Your task to perform on an android device: Go to network settings Image 0: 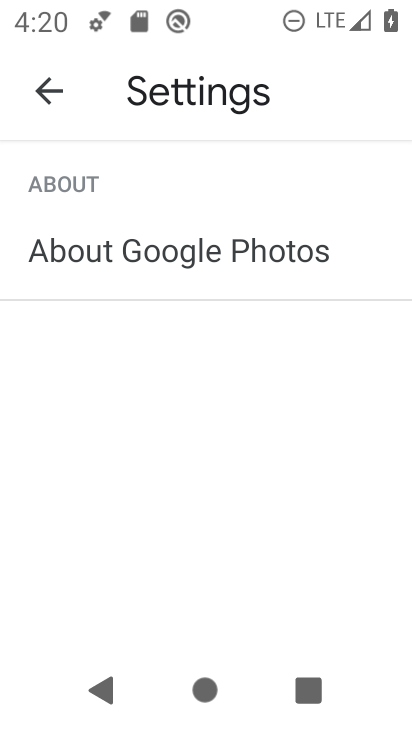
Step 0: press home button
Your task to perform on an android device: Go to network settings Image 1: 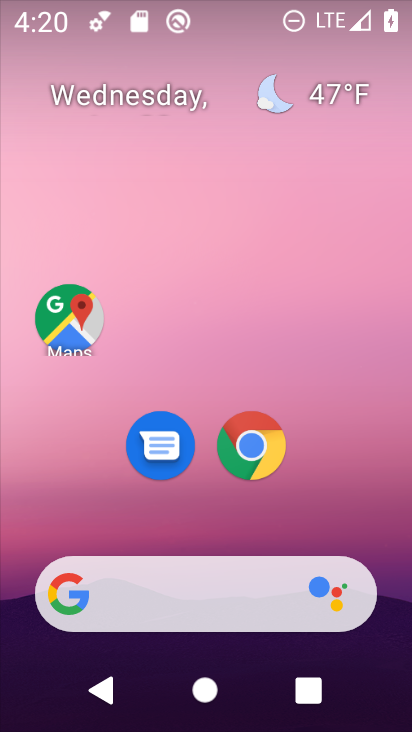
Step 1: drag from (298, 500) to (317, 52)
Your task to perform on an android device: Go to network settings Image 2: 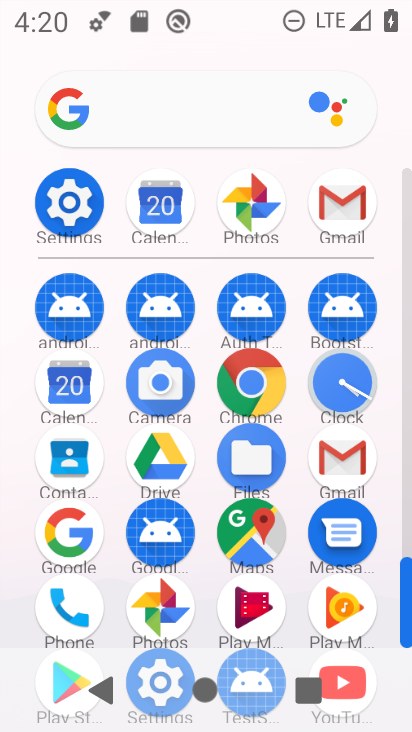
Step 2: click (59, 199)
Your task to perform on an android device: Go to network settings Image 3: 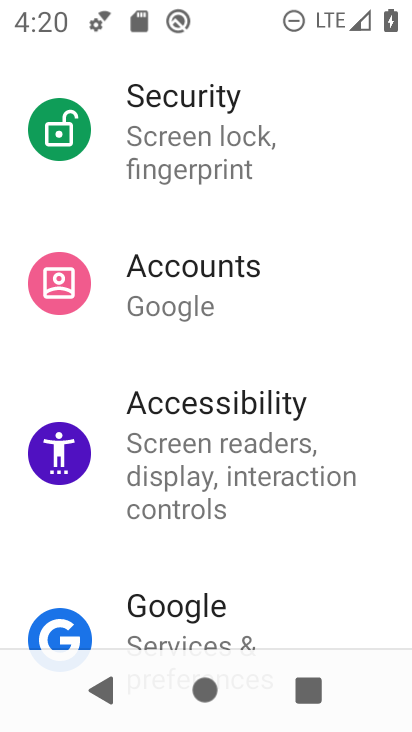
Step 3: click (193, 462)
Your task to perform on an android device: Go to network settings Image 4: 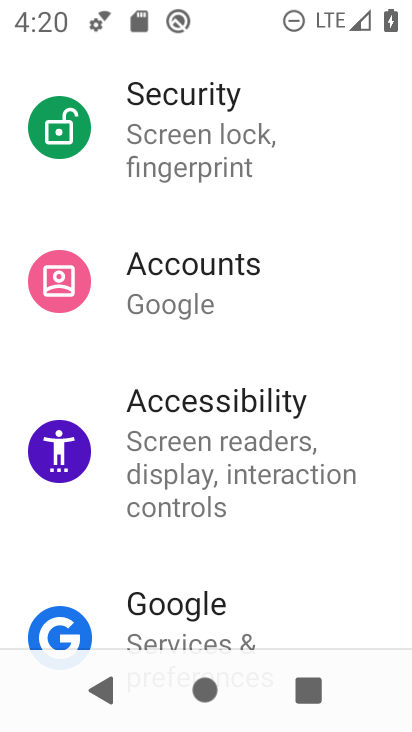
Step 4: drag from (255, 230) to (286, 408)
Your task to perform on an android device: Go to network settings Image 5: 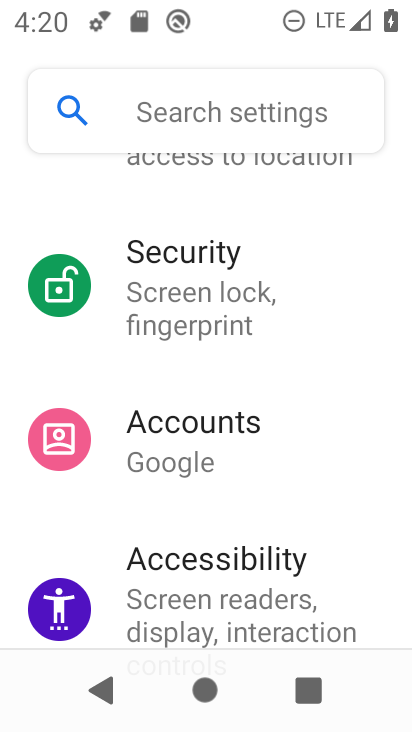
Step 5: drag from (290, 244) to (280, 454)
Your task to perform on an android device: Go to network settings Image 6: 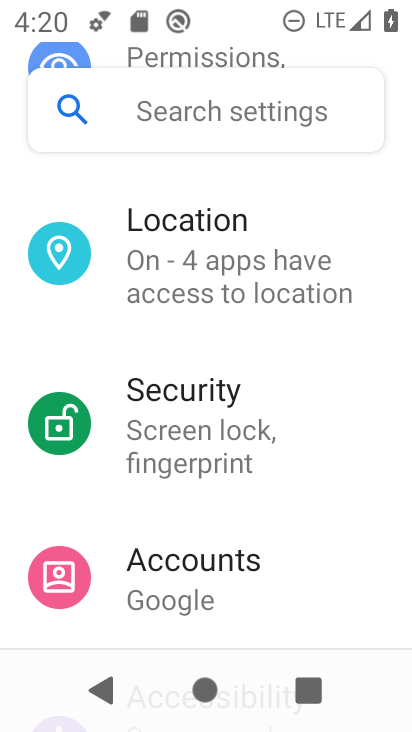
Step 6: drag from (301, 212) to (293, 490)
Your task to perform on an android device: Go to network settings Image 7: 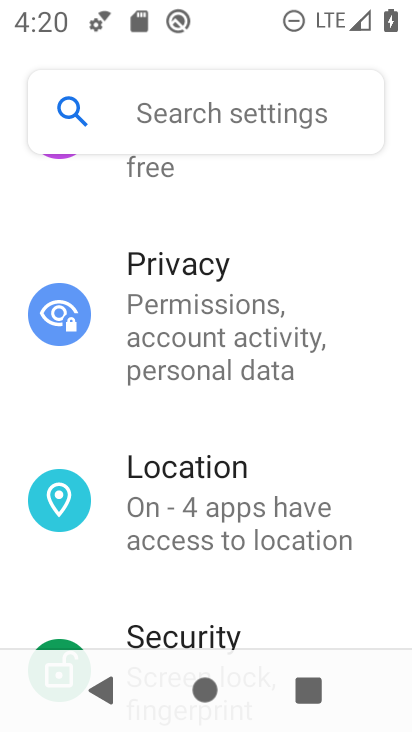
Step 7: drag from (309, 243) to (313, 454)
Your task to perform on an android device: Go to network settings Image 8: 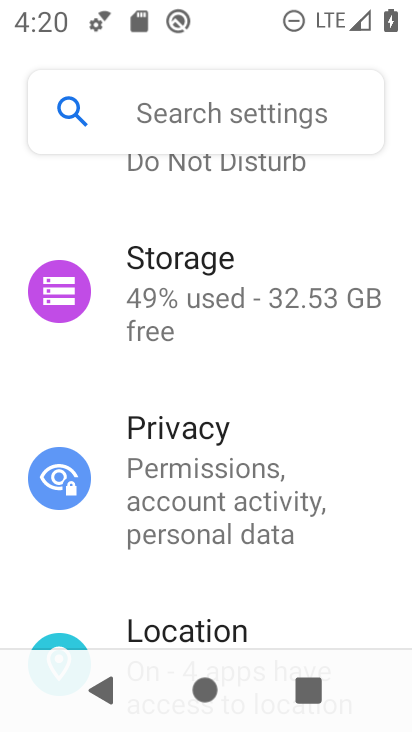
Step 8: drag from (305, 240) to (313, 405)
Your task to perform on an android device: Go to network settings Image 9: 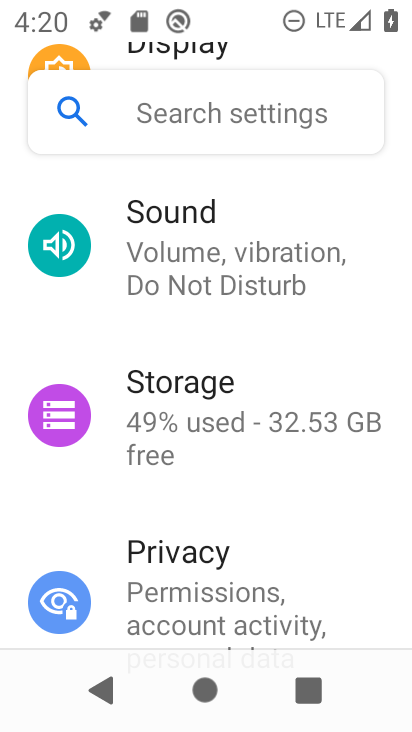
Step 9: drag from (305, 202) to (302, 445)
Your task to perform on an android device: Go to network settings Image 10: 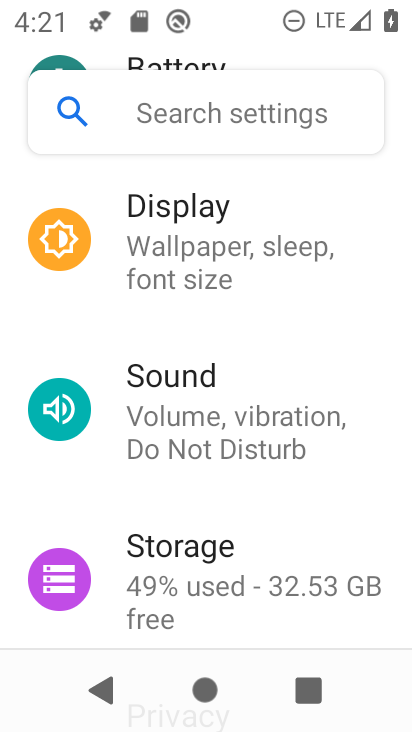
Step 10: drag from (298, 221) to (300, 429)
Your task to perform on an android device: Go to network settings Image 11: 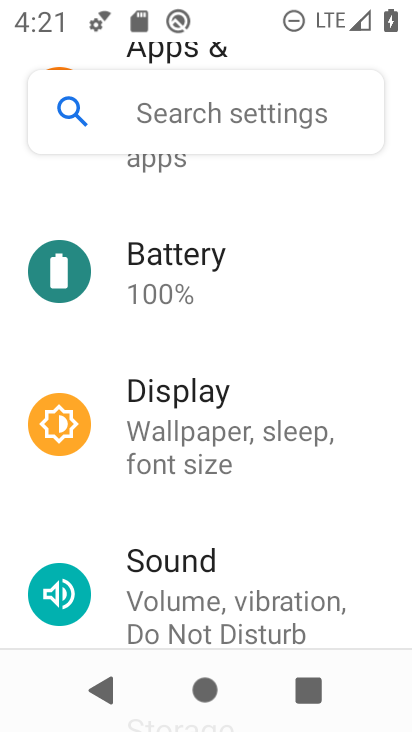
Step 11: drag from (277, 242) to (264, 438)
Your task to perform on an android device: Go to network settings Image 12: 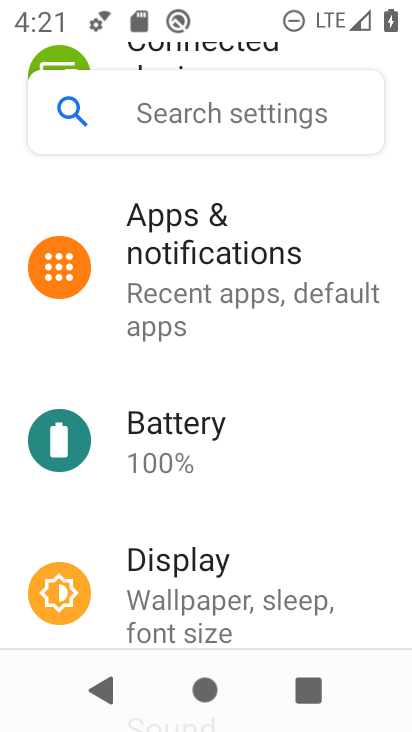
Step 12: drag from (303, 206) to (324, 390)
Your task to perform on an android device: Go to network settings Image 13: 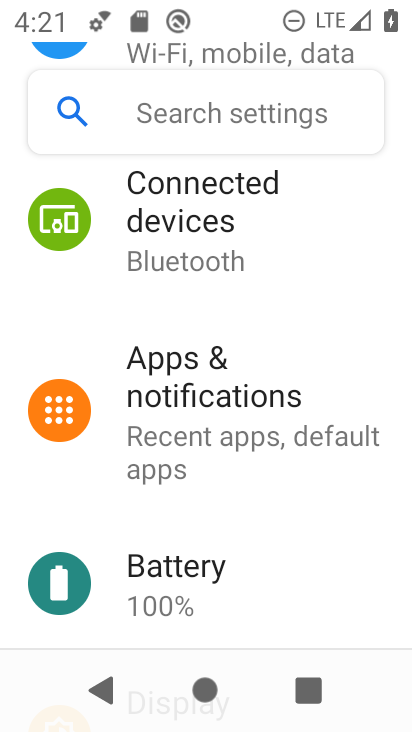
Step 13: drag from (335, 222) to (308, 447)
Your task to perform on an android device: Go to network settings Image 14: 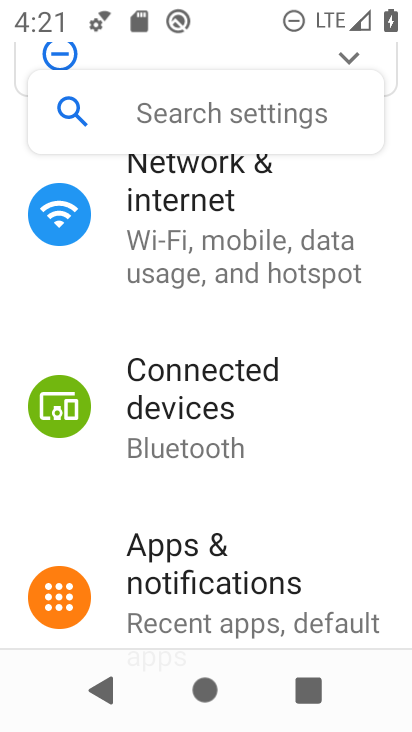
Step 14: drag from (322, 232) to (331, 420)
Your task to perform on an android device: Go to network settings Image 15: 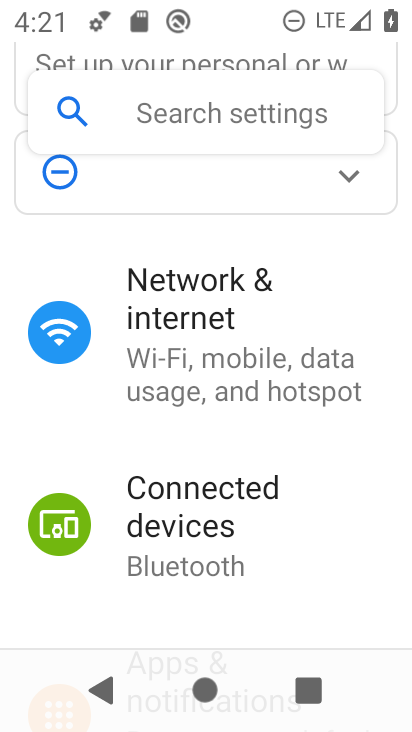
Step 15: click (199, 297)
Your task to perform on an android device: Go to network settings Image 16: 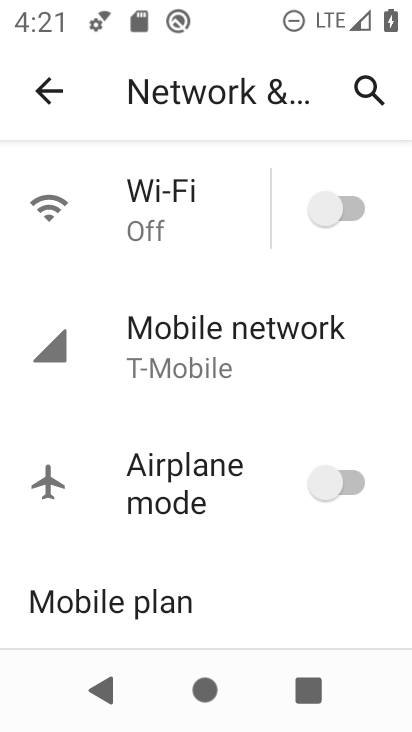
Step 16: click (213, 317)
Your task to perform on an android device: Go to network settings Image 17: 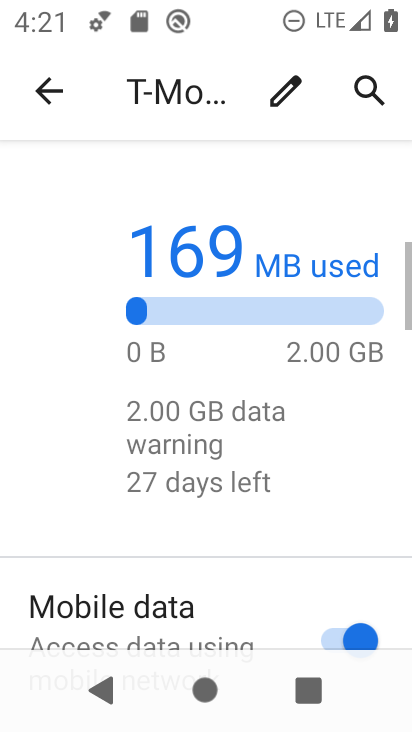
Step 17: task complete